Your task to perform on an android device: Is it going to rain tomorrow? Image 0: 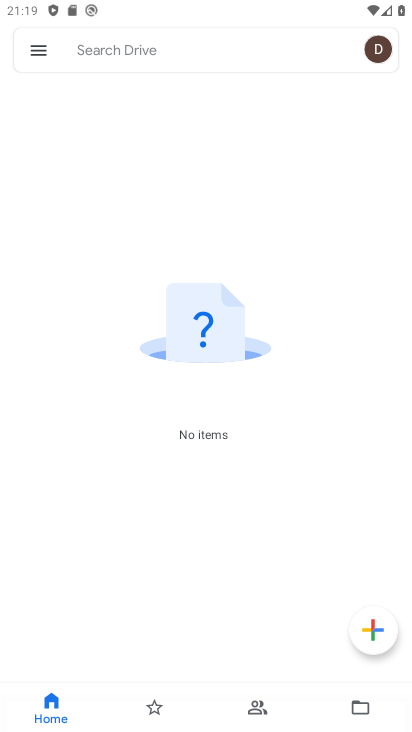
Step 0: press home button
Your task to perform on an android device: Is it going to rain tomorrow? Image 1: 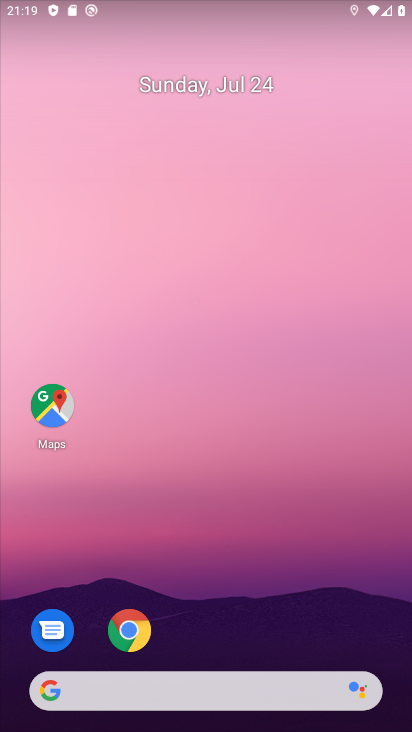
Step 1: drag from (242, 605) to (249, 235)
Your task to perform on an android device: Is it going to rain tomorrow? Image 2: 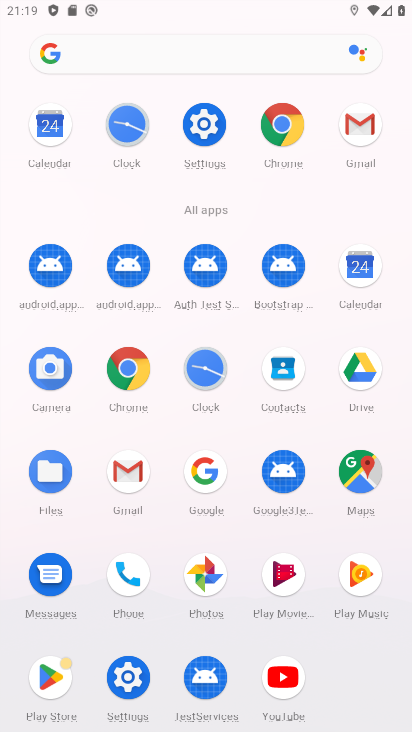
Step 2: click (277, 126)
Your task to perform on an android device: Is it going to rain tomorrow? Image 3: 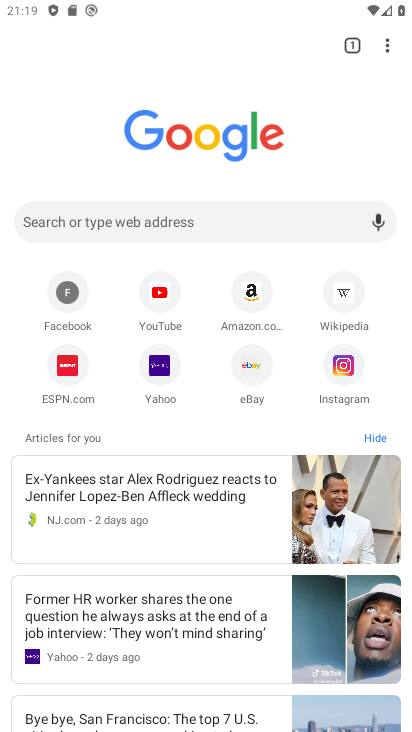
Step 3: click (189, 208)
Your task to perform on an android device: Is it going to rain tomorrow? Image 4: 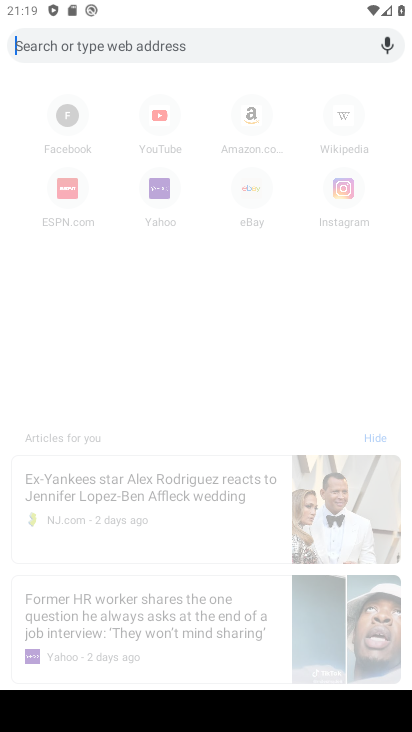
Step 4: type "Is it going to rain tomorrow "
Your task to perform on an android device: Is it going to rain tomorrow? Image 5: 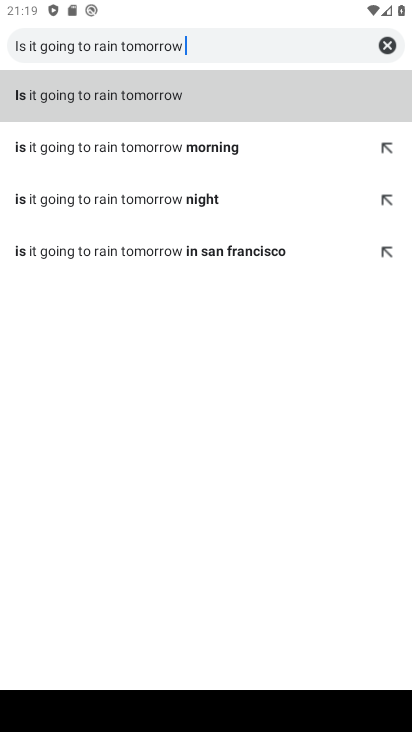
Step 5: click (132, 75)
Your task to perform on an android device: Is it going to rain tomorrow? Image 6: 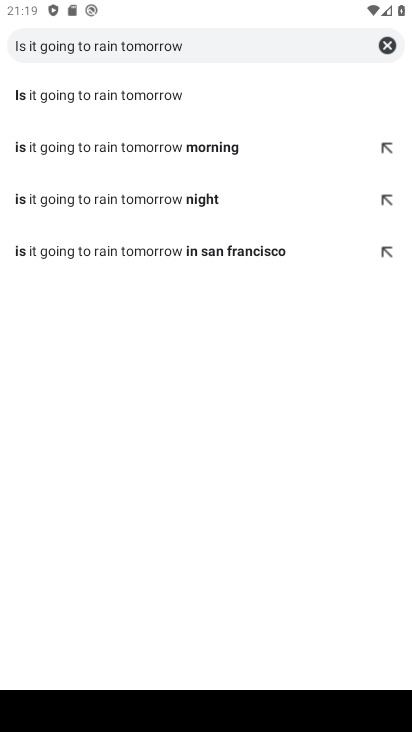
Step 6: click (155, 100)
Your task to perform on an android device: Is it going to rain tomorrow? Image 7: 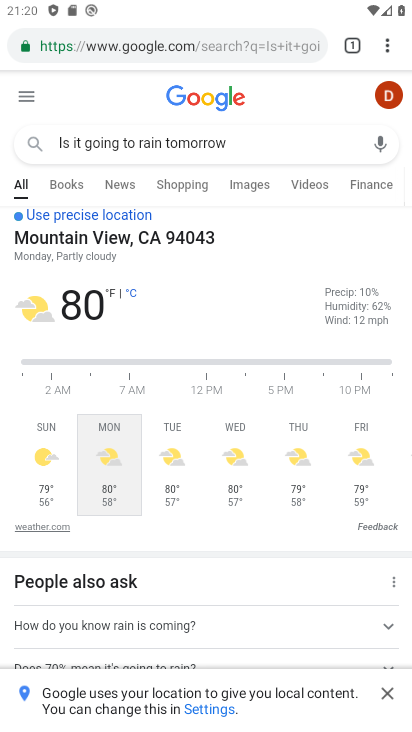
Step 7: task complete